Your task to perform on an android device: turn notification dots on Image 0: 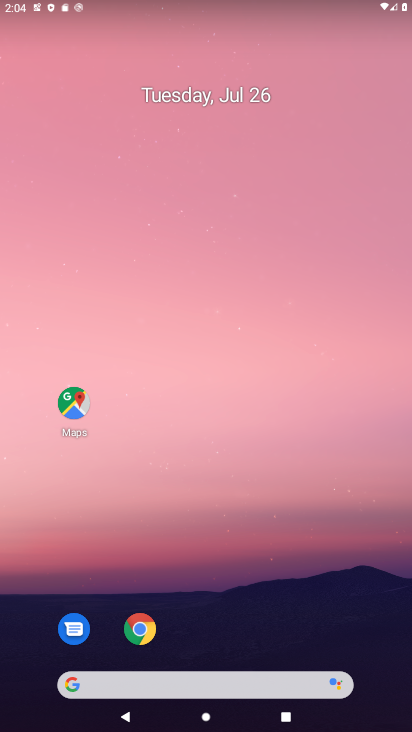
Step 0: drag from (188, 557) to (150, 206)
Your task to perform on an android device: turn notification dots on Image 1: 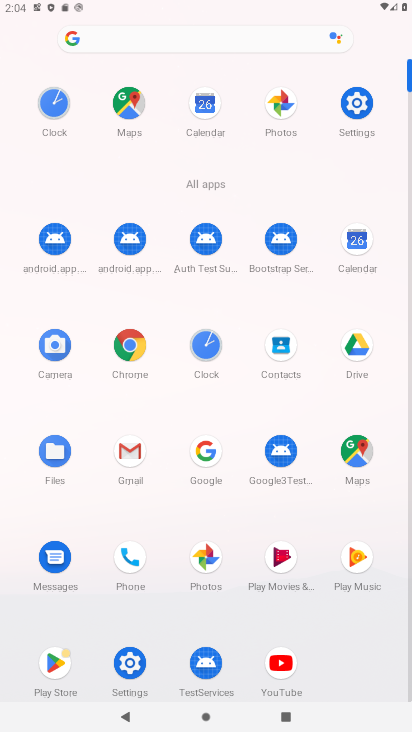
Step 1: click (366, 103)
Your task to perform on an android device: turn notification dots on Image 2: 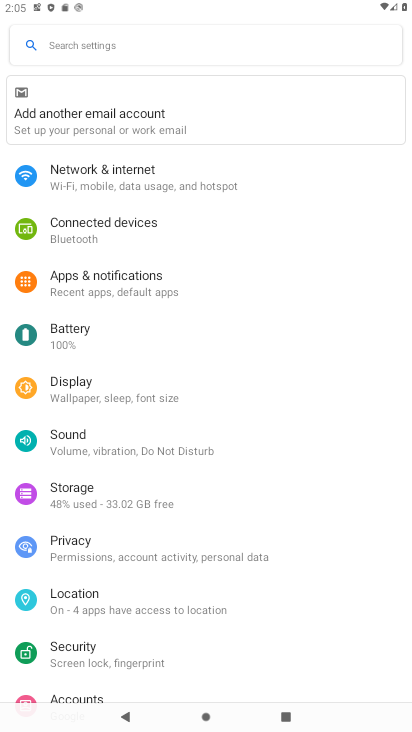
Step 2: click (194, 273)
Your task to perform on an android device: turn notification dots on Image 3: 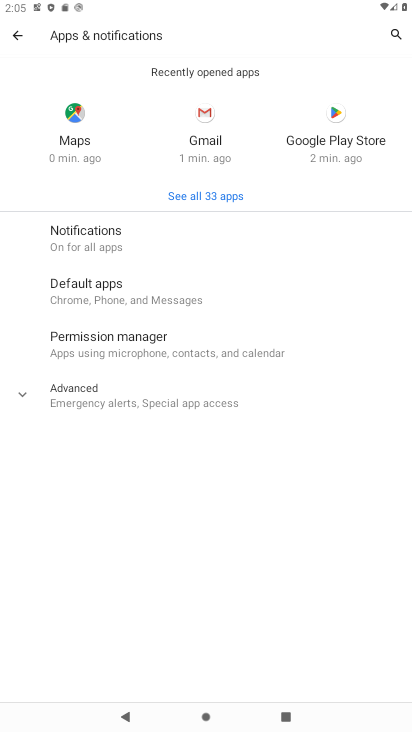
Step 3: click (150, 241)
Your task to perform on an android device: turn notification dots on Image 4: 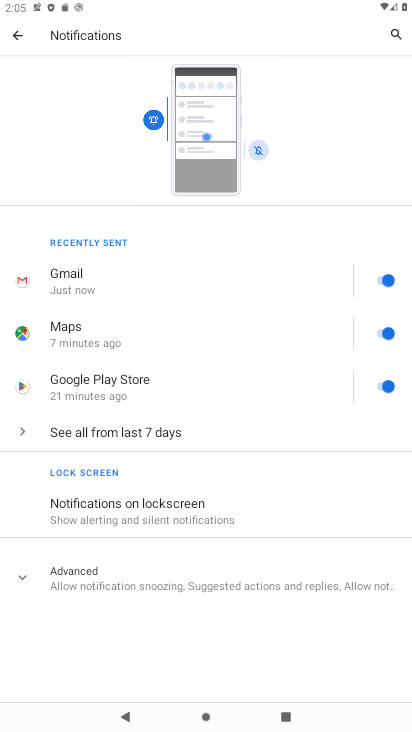
Step 4: click (158, 581)
Your task to perform on an android device: turn notification dots on Image 5: 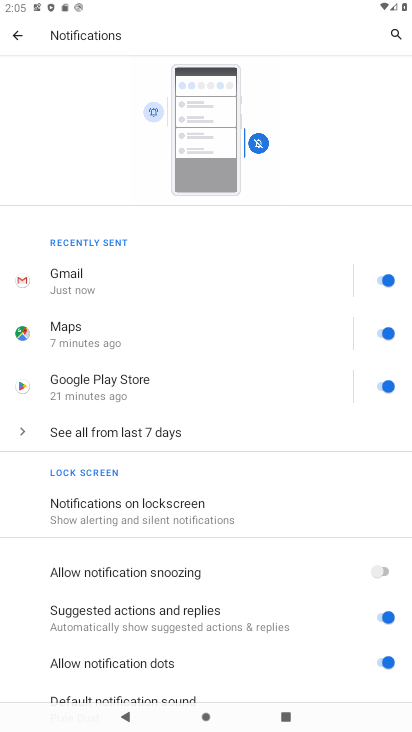
Step 5: task complete